Your task to perform on an android device: Search for seafood restaurants on Google Maps Image 0: 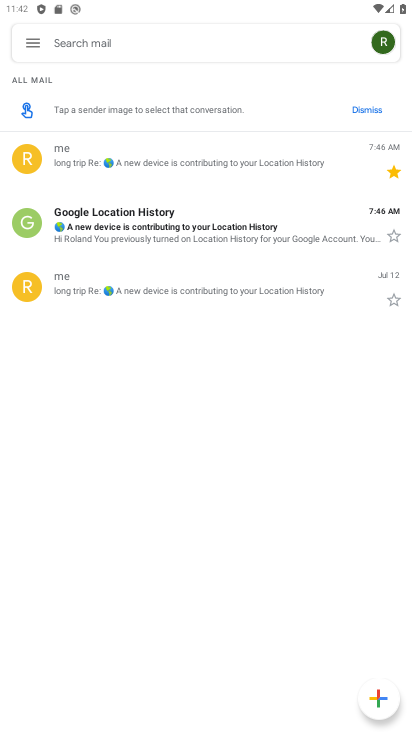
Step 0: press home button
Your task to perform on an android device: Search for seafood restaurants on Google Maps Image 1: 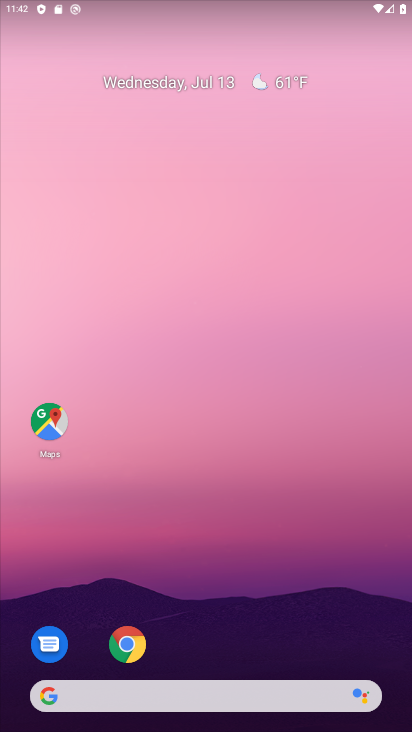
Step 1: drag from (233, 626) to (231, 191)
Your task to perform on an android device: Search for seafood restaurants on Google Maps Image 2: 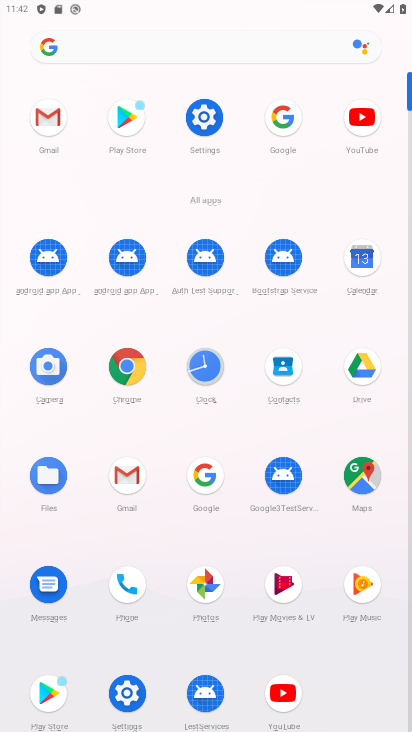
Step 2: click (363, 478)
Your task to perform on an android device: Search for seafood restaurants on Google Maps Image 3: 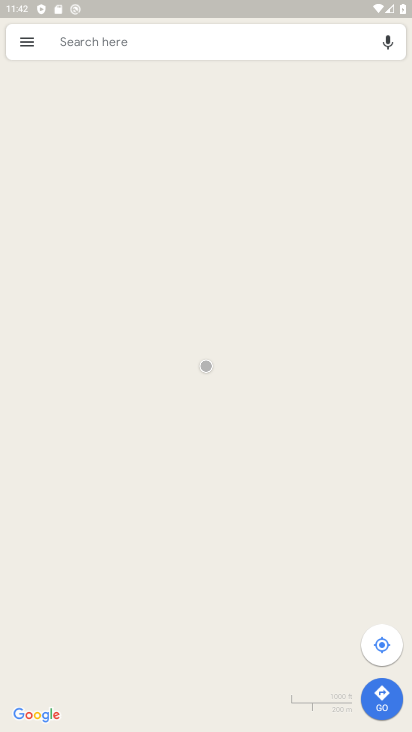
Step 3: click (168, 53)
Your task to perform on an android device: Search for seafood restaurants on Google Maps Image 4: 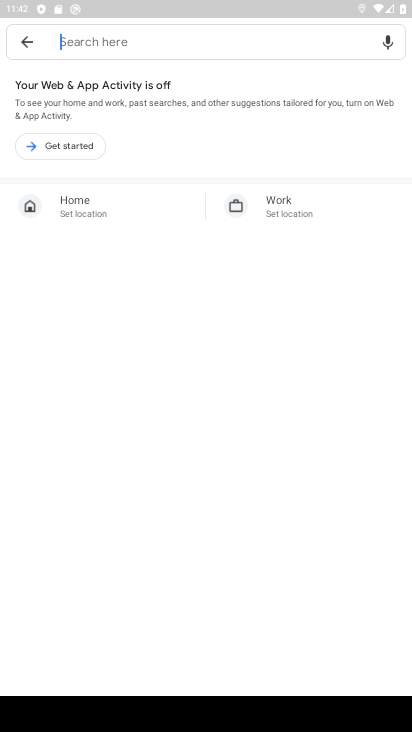
Step 4: click (81, 143)
Your task to perform on an android device: Search for seafood restaurants on Google Maps Image 5: 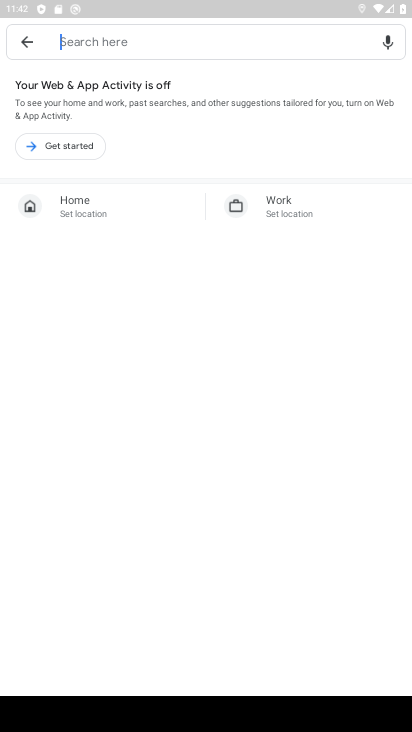
Step 5: click (54, 143)
Your task to perform on an android device: Search for seafood restaurants on Google Maps Image 6: 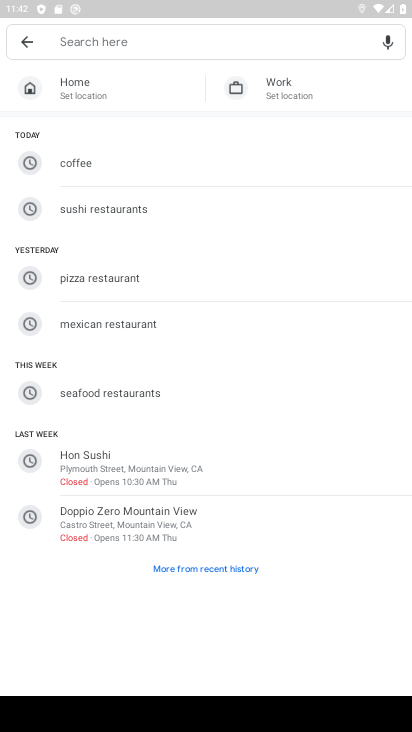
Step 6: click (136, 390)
Your task to perform on an android device: Search for seafood restaurants on Google Maps Image 7: 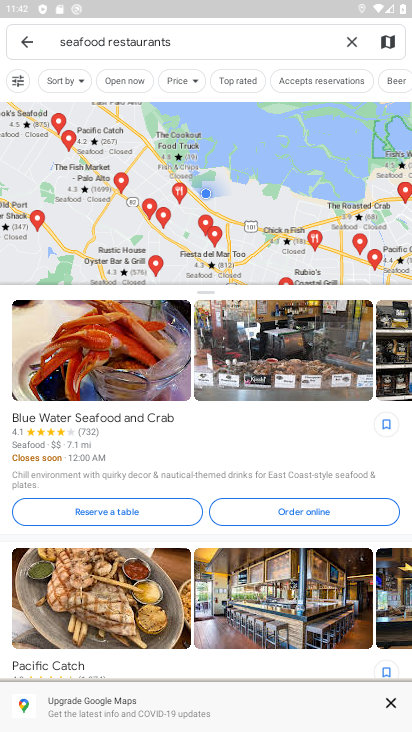
Step 7: task complete